Your task to perform on an android device: Turn off the flashlight Image 0: 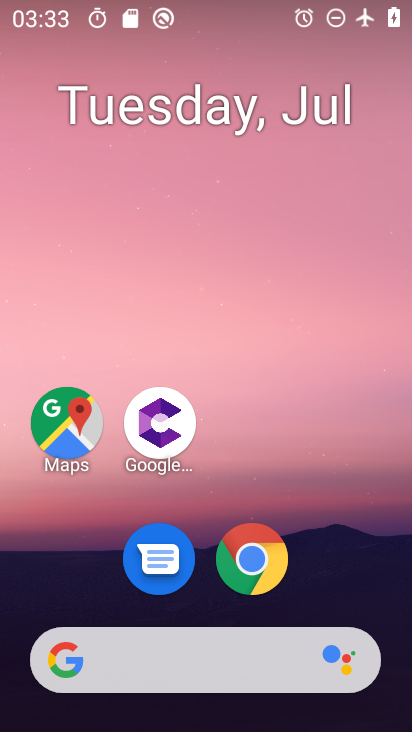
Step 0: drag from (273, 2) to (307, 305)
Your task to perform on an android device: Turn off the flashlight Image 1: 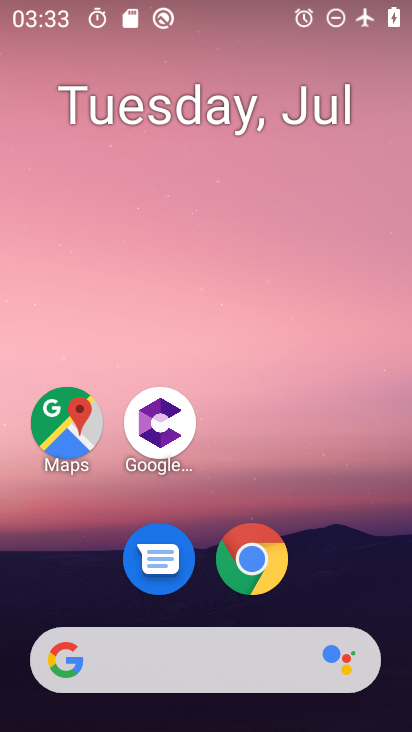
Step 1: drag from (259, 36) to (268, 330)
Your task to perform on an android device: Turn off the flashlight Image 2: 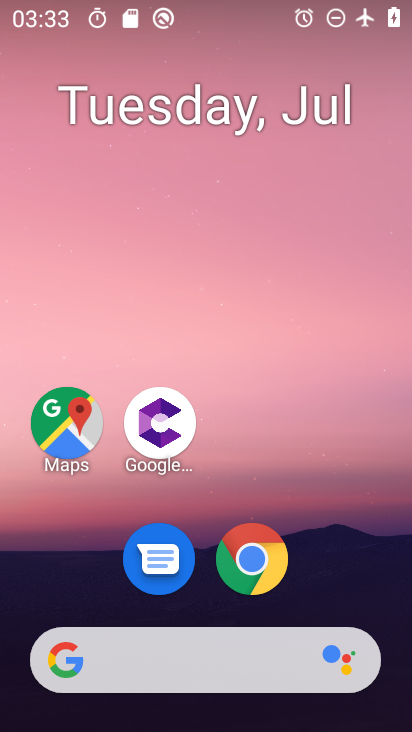
Step 2: drag from (250, 93) to (256, 358)
Your task to perform on an android device: Turn off the flashlight Image 3: 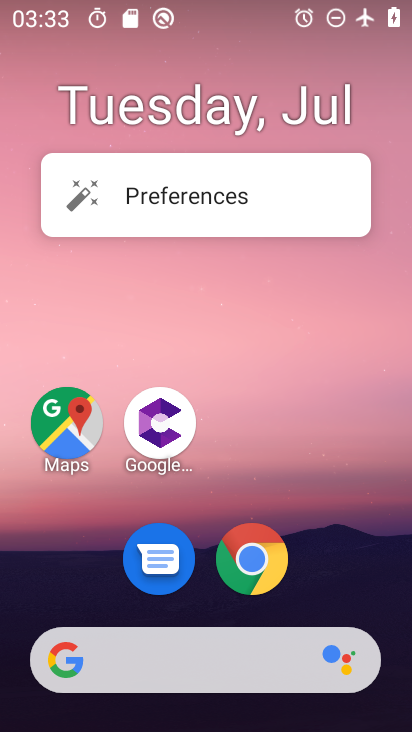
Step 3: click (311, 333)
Your task to perform on an android device: Turn off the flashlight Image 4: 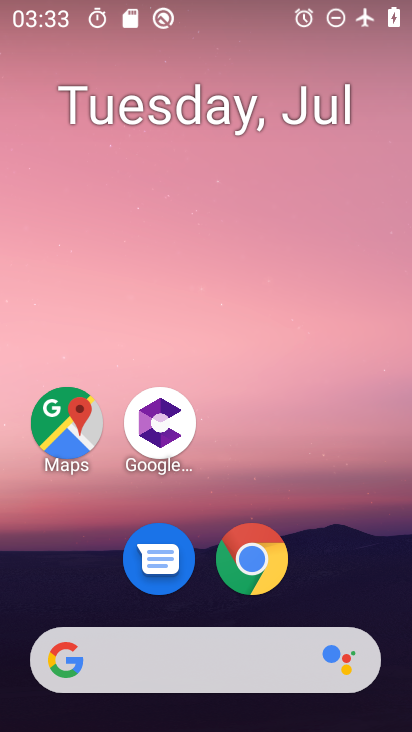
Step 4: drag from (256, 64) to (273, 410)
Your task to perform on an android device: Turn off the flashlight Image 5: 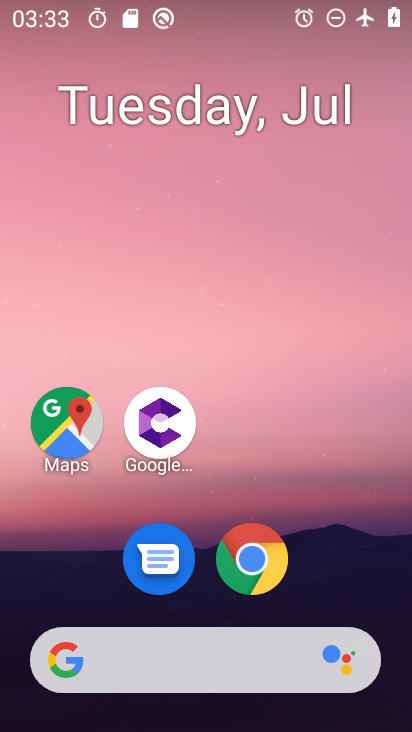
Step 5: drag from (232, 4) to (235, 453)
Your task to perform on an android device: Turn off the flashlight Image 6: 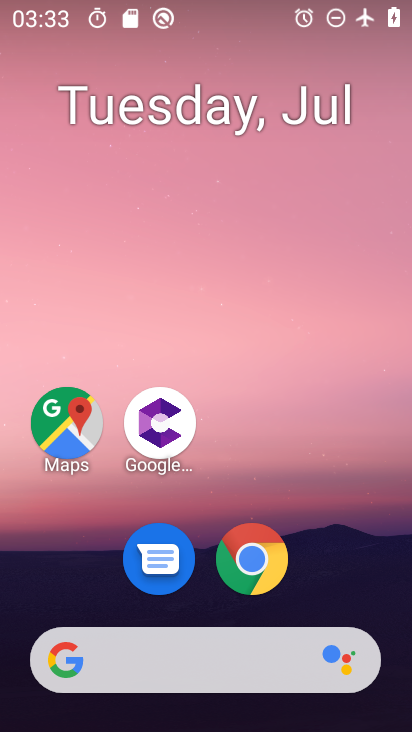
Step 6: drag from (217, 1) to (235, 452)
Your task to perform on an android device: Turn off the flashlight Image 7: 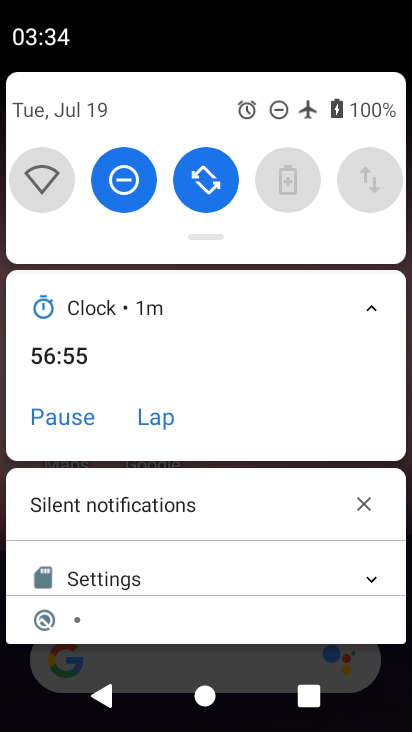
Step 7: drag from (247, 126) to (256, 381)
Your task to perform on an android device: Turn off the flashlight Image 8: 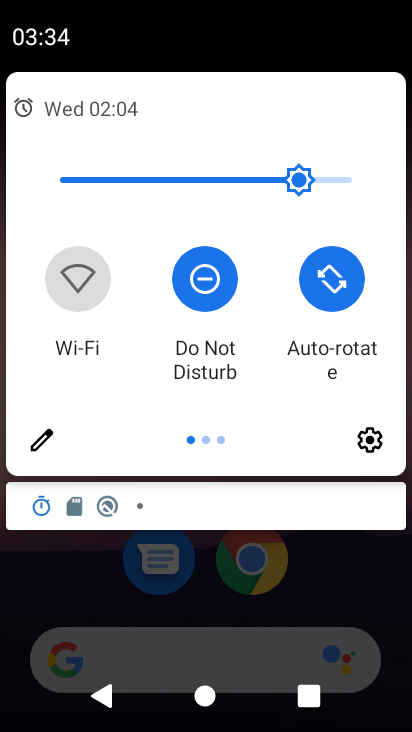
Step 8: click (49, 443)
Your task to perform on an android device: Turn off the flashlight Image 9: 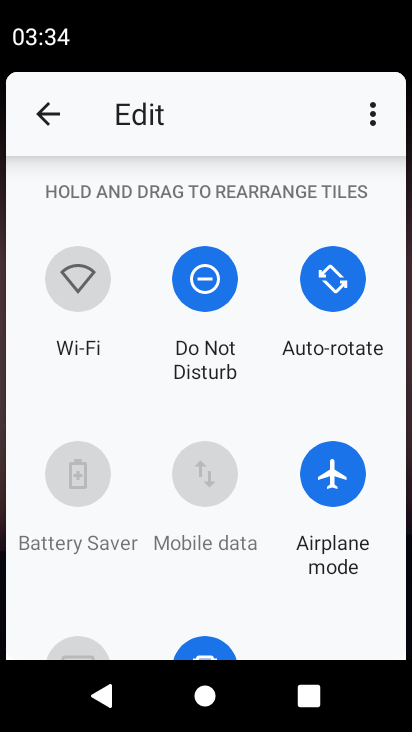
Step 9: task complete